Your task to perform on an android device: Show me recent news Image 0: 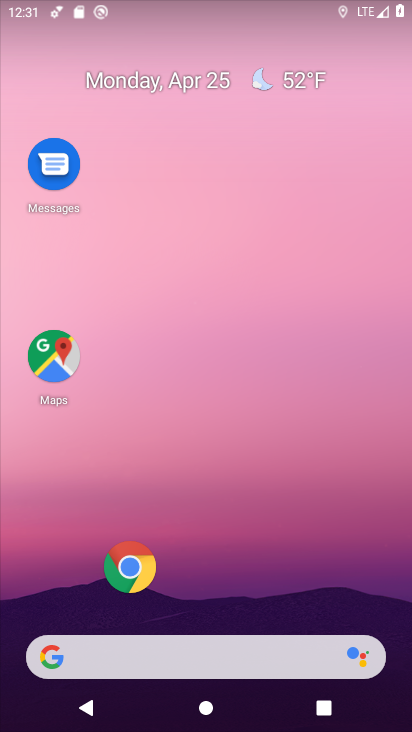
Step 0: drag from (305, 475) to (292, 0)
Your task to perform on an android device: Show me recent news Image 1: 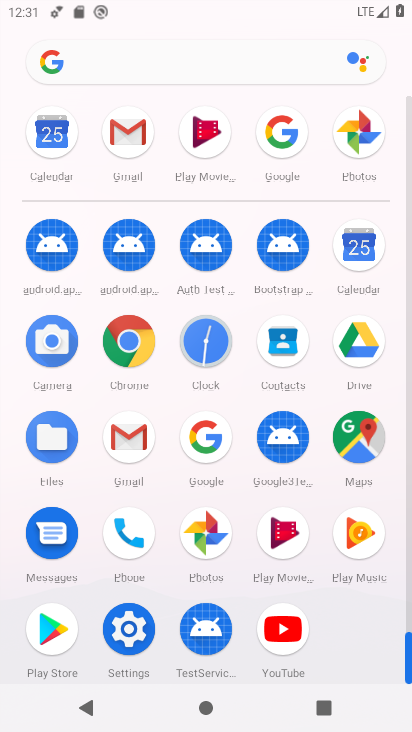
Step 1: click (209, 437)
Your task to perform on an android device: Show me recent news Image 2: 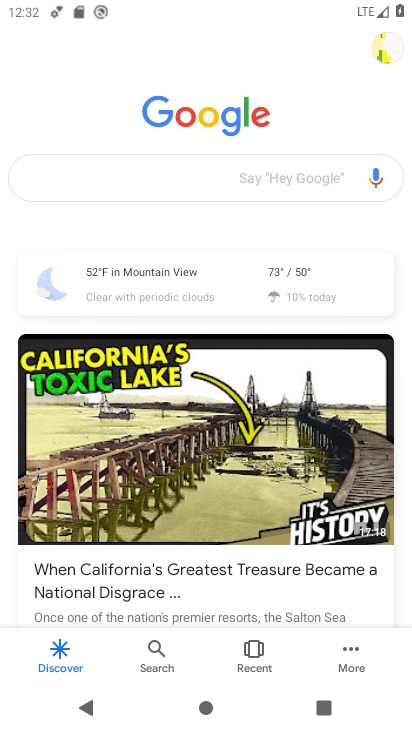
Step 2: click (226, 166)
Your task to perform on an android device: Show me recent news Image 3: 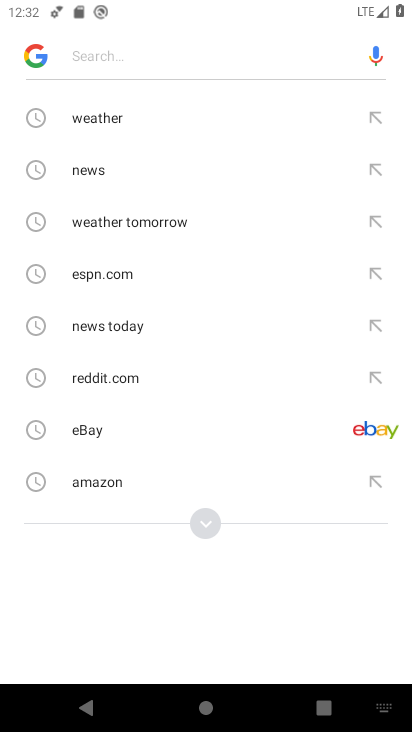
Step 3: click (380, 168)
Your task to perform on an android device: Show me recent news Image 4: 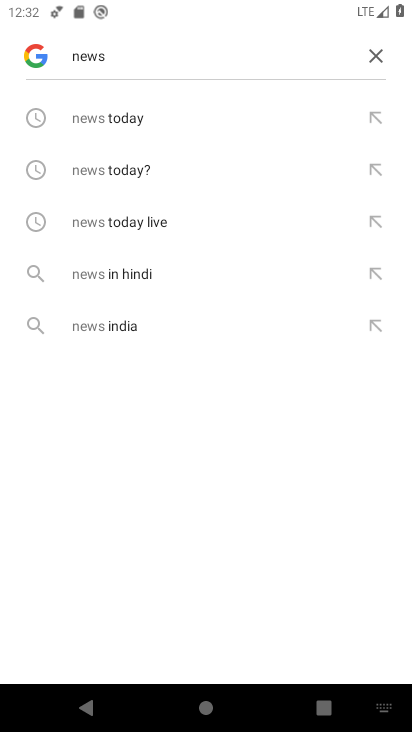
Step 4: task complete